Your task to perform on an android device: change the clock display to analog Image 0: 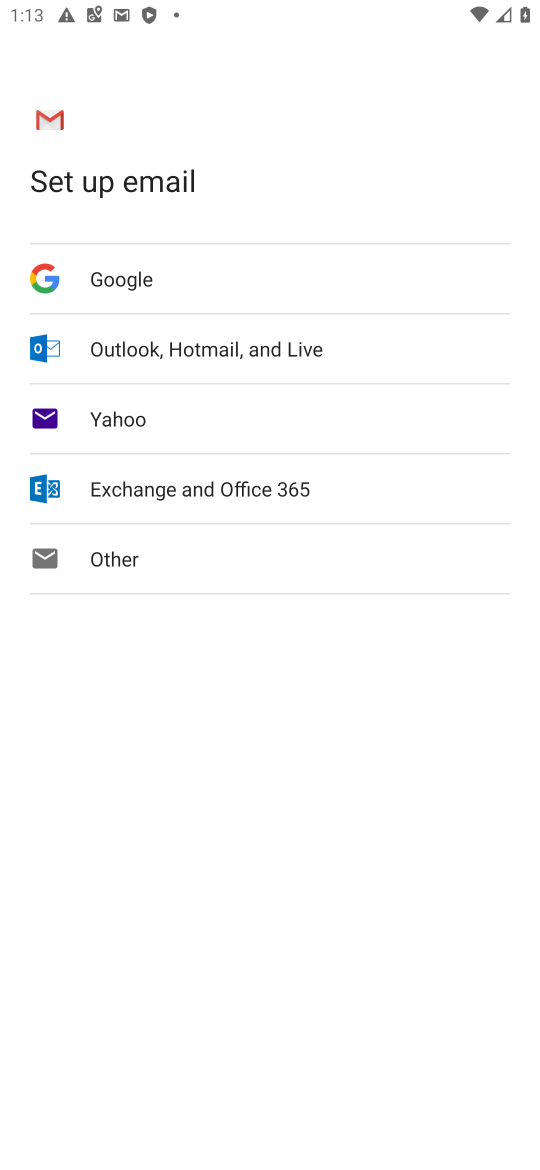
Step 0: task complete